Your task to perform on an android device: turn on bluetooth scan Image 0: 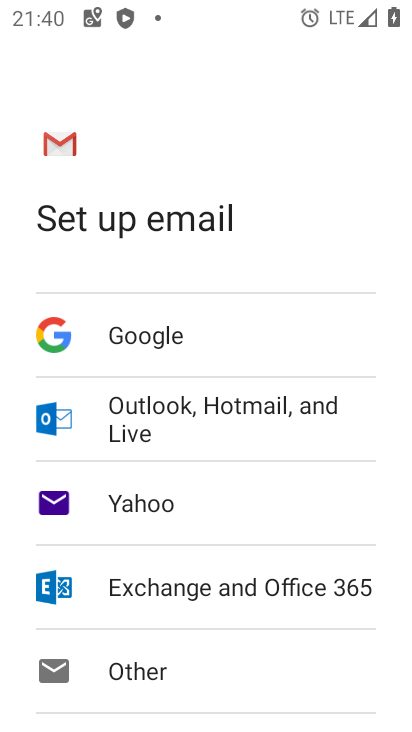
Step 0: press home button
Your task to perform on an android device: turn on bluetooth scan Image 1: 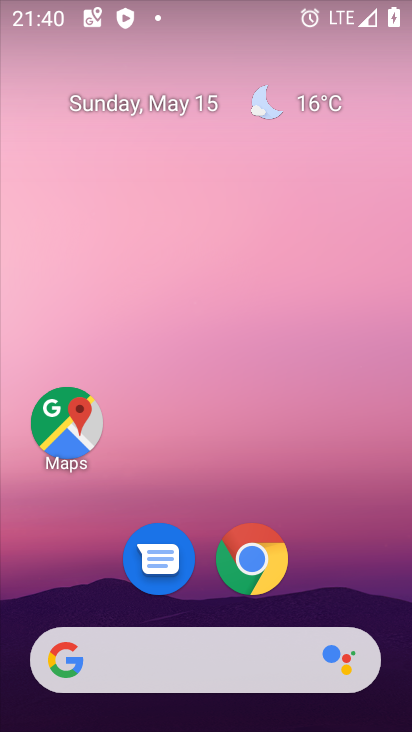
Step 1: drag from (247, 434) to (126, 115)
Your task to perform on an android device: turn on bluetooth scan Image 2: 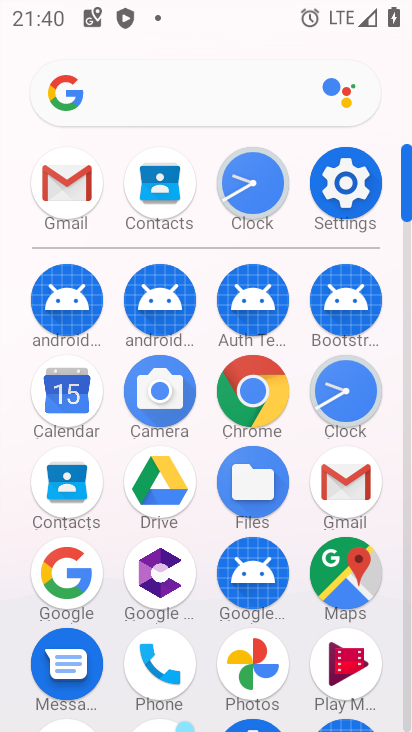
Step 2: click (345, 177)
Your task to perform on an android device: turn on bluetooth scan Image 3: 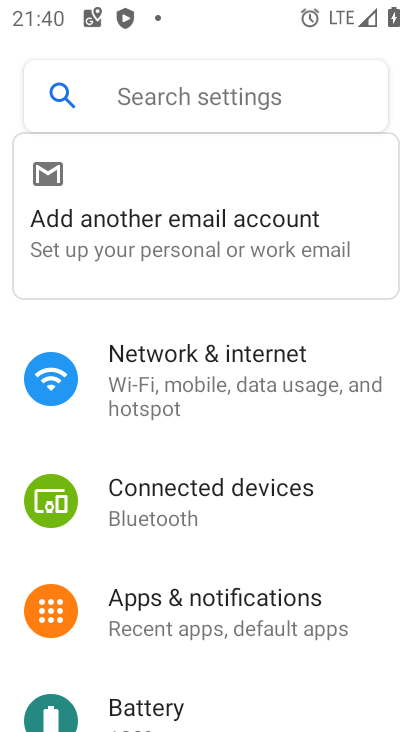
Step 3: drag from (245, 527) to (174, 308)
Your task to perform on an android device: turn on bluetooth scan Image 4: 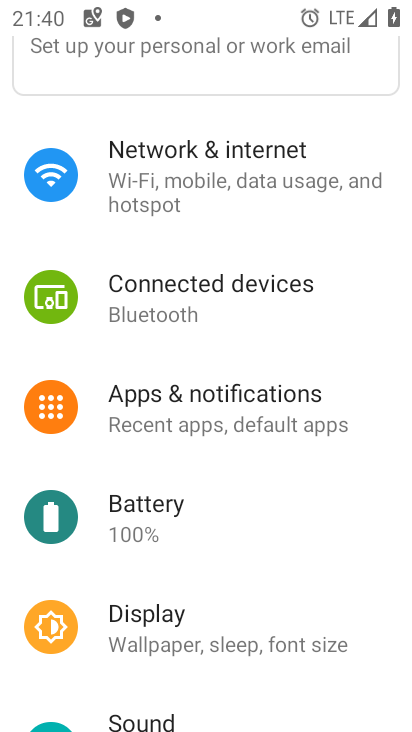
Step 4: drag from (240, 478) to (184, 258)
Your task to perform on an android device: turn on bluetooth scan Image 5: 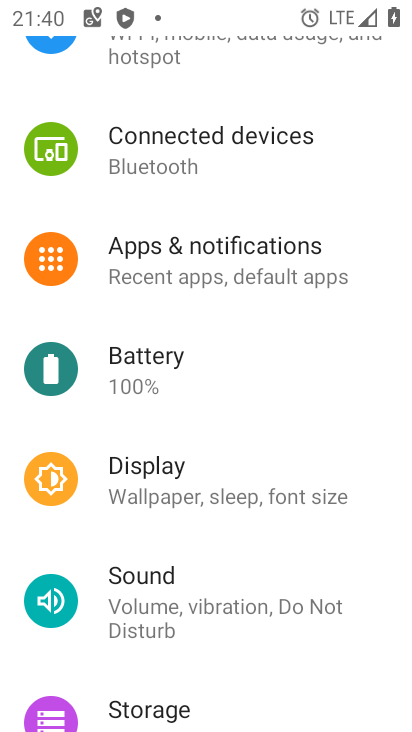
Step 5: drag from (243, 553) to (188, 318)
Your task to perform on an android device: turn on bluetooth scan Image 6: 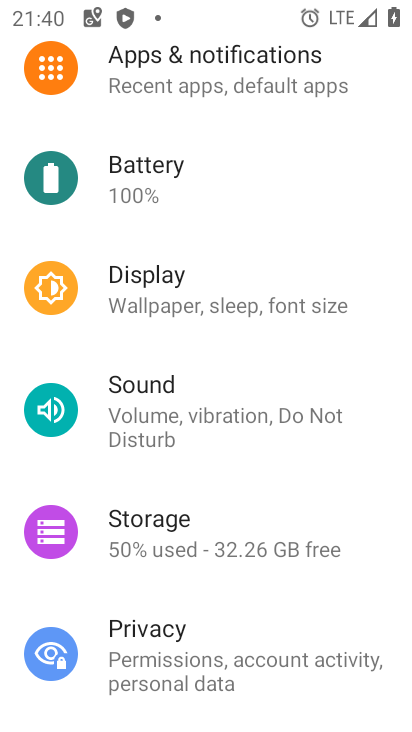
Step 6: drag from (232, 507) to (123, 193)
Your task to perform on an android device: turn on bluetooth scan Image 7: 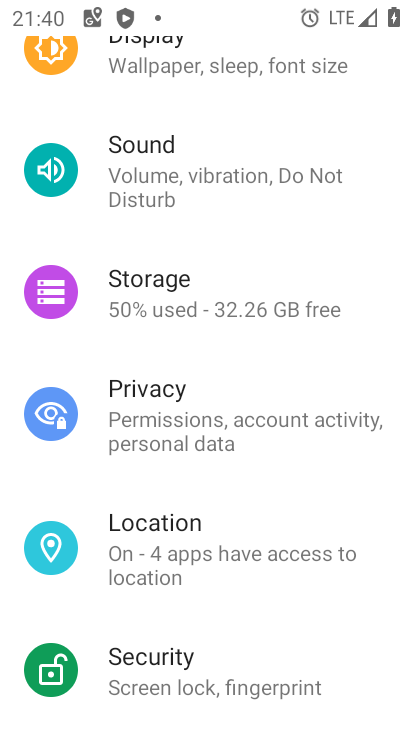
Step 7: click (134, 525)
Your task to perform on an android device: turn on bluetooth scan Image 8: 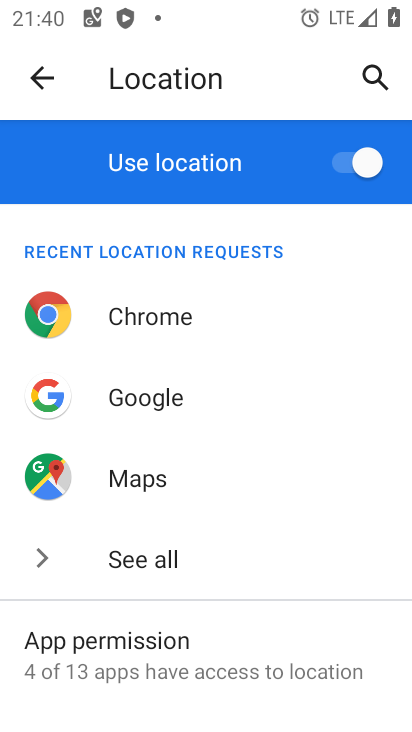
Step 8: drag from (291, 538) to (174, 318)
Your task to perform on an android device: turn on bluetooth scan Image 9: 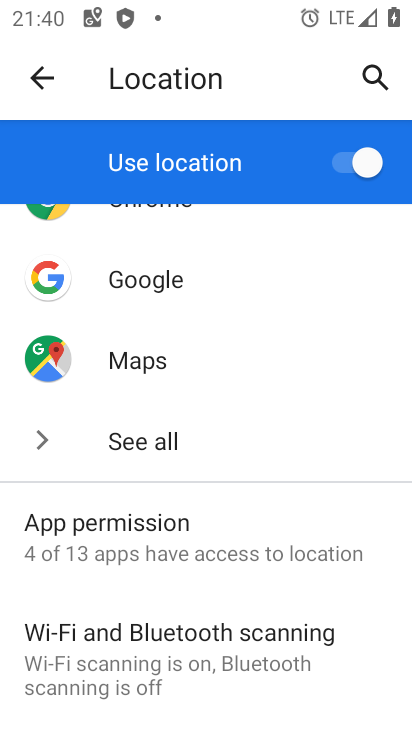
Step 9: click (147, 634)
Your task to perform on an android device: turn on bluetooth scan Image 10: 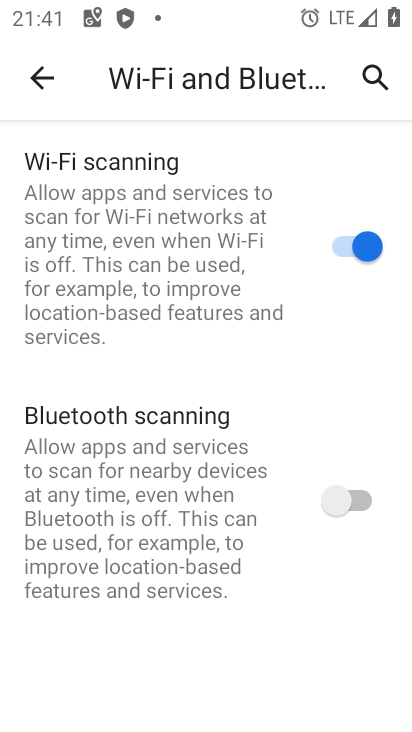
Step 10: click (336, 496)
Your task to perform on an android device: turn on bluetooth scan Image 11: 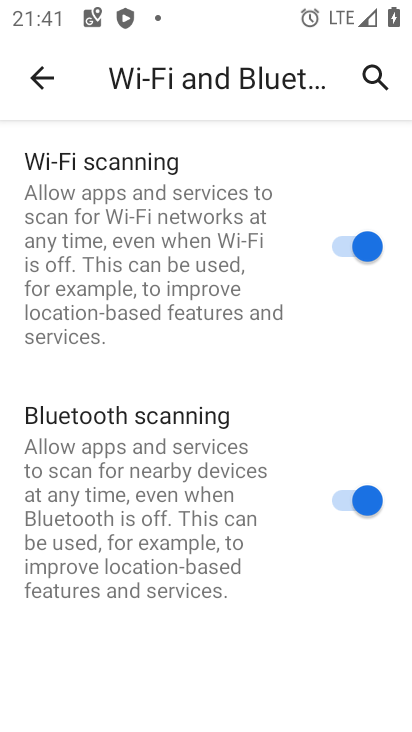
Step 11: task complete